Your task to perform on an android device: change your default location settings in chrome Image 0: 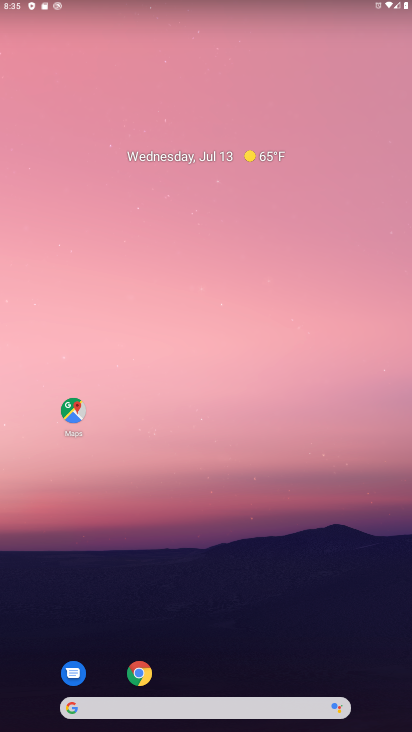
Step 0: click (138, 675)
Your task to perform on an android device: change your default location settings in chrome Image 1: 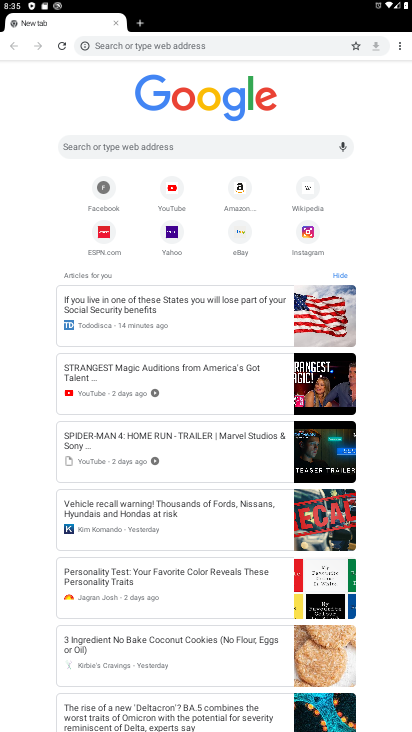
Step 1: click (400, 50)
Your task to perform on an android device: change your default location settings in chrome Image 2: 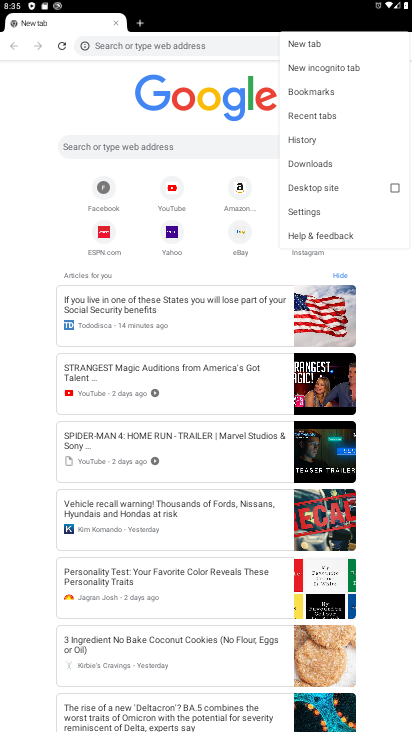
Step 2: click (315, 211)
Your task to perform on an android device: change your default location settings in chrome Image 3: 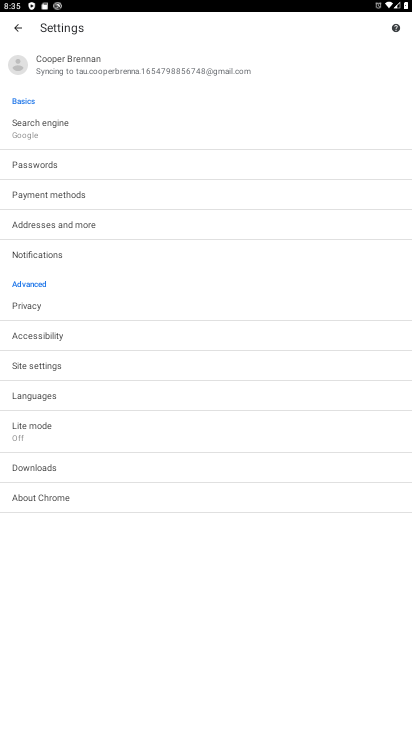
Step 3: click (32, 363)
Your task to perform on an android device: change your default location settings in chrome Image 4: 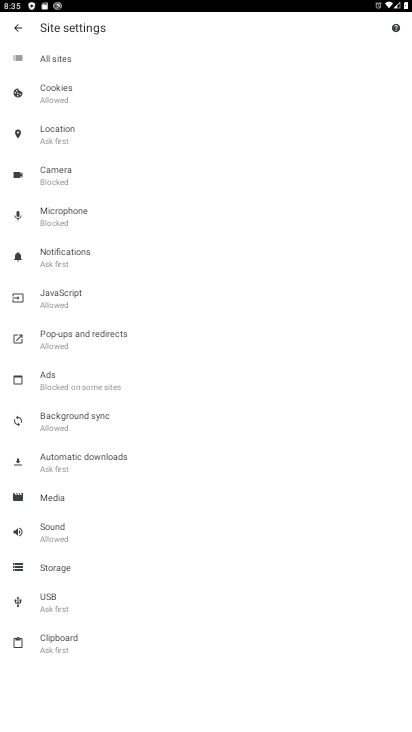
Step 4: click (62, 139)
Your task to perform on an android device: change your default location settings in chrome Image 5: 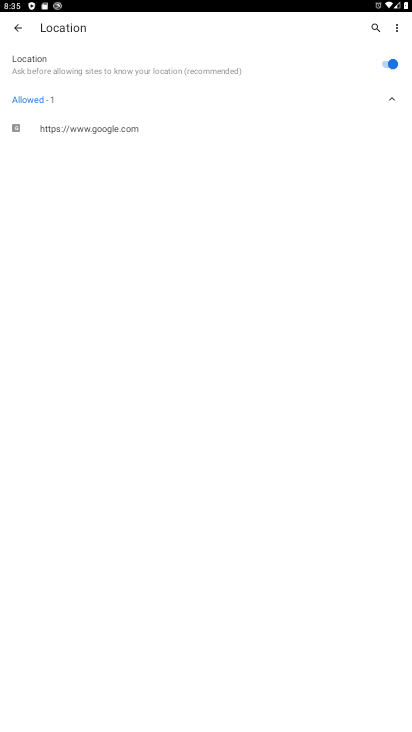
Step 5: click (386, 73)
Your task to perform on an android device: change your default location settings in chrome Image 6: 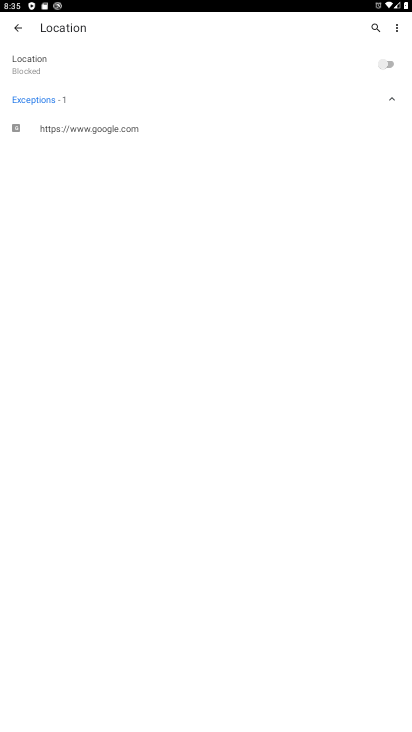
Step 6: task complete